Your task to perform on an android device: When is my next meeting? Image 0: 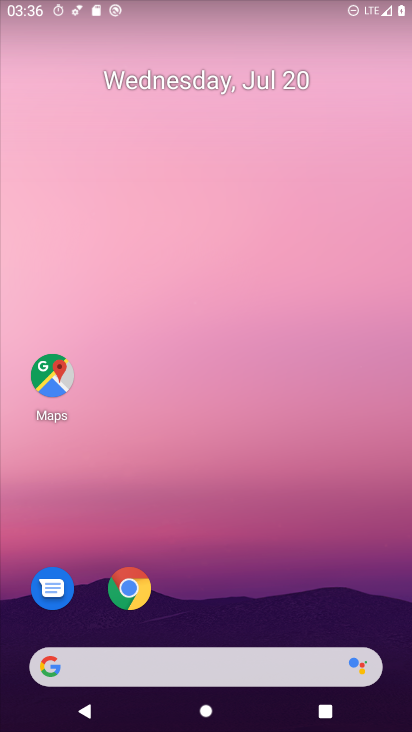
Step 0: drag from (210, 636) to (124, 37)
Your task to perform on an android device: When is my next meeting? Image 1: 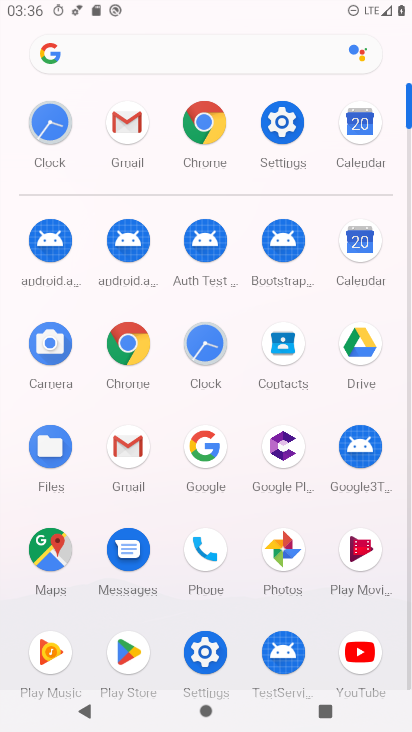
Step 1: click (359, 252)
Your task to perform on an android device: When is my next meeting? Image 2: 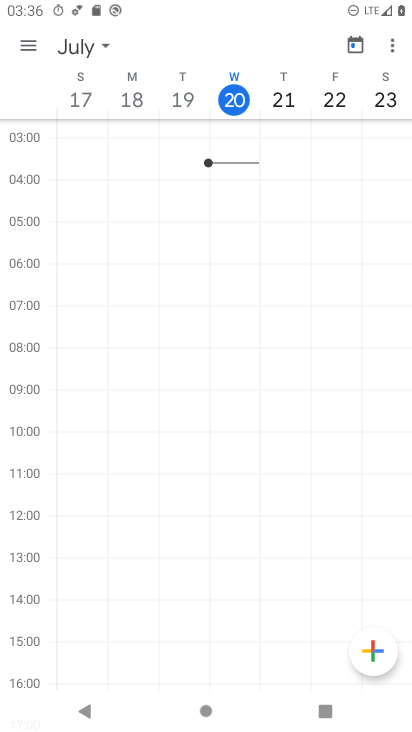
Step 2: task complete